Your task to perform on an android device: Open Android settings Image 0: 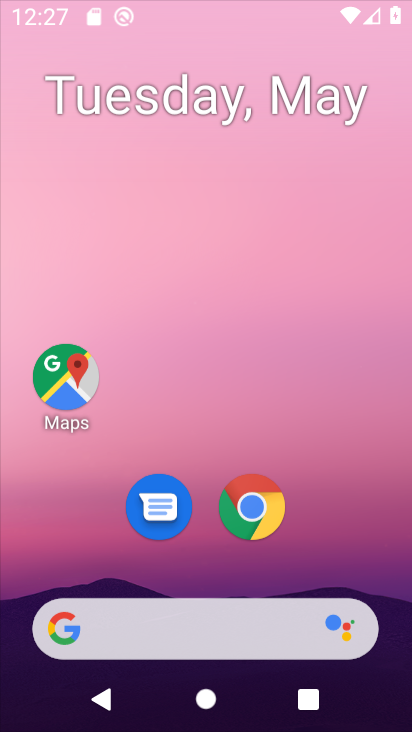
Step 0: click (109, 163)
Your task to perform on an android device: Open Android settings Image 1: 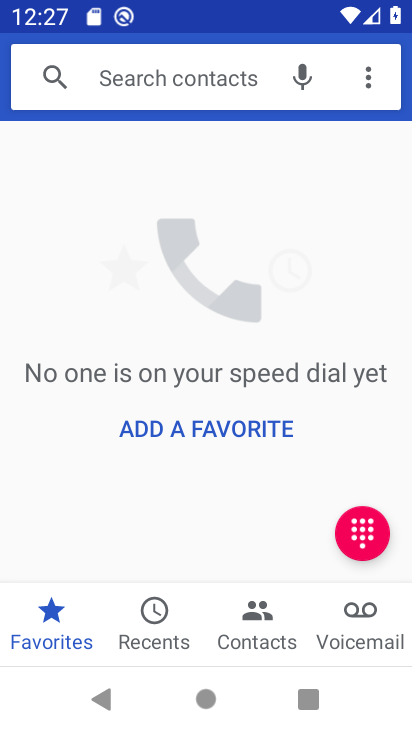
Step 1: press back button
Your task to perform on an android device: Open Android settings Image 2: 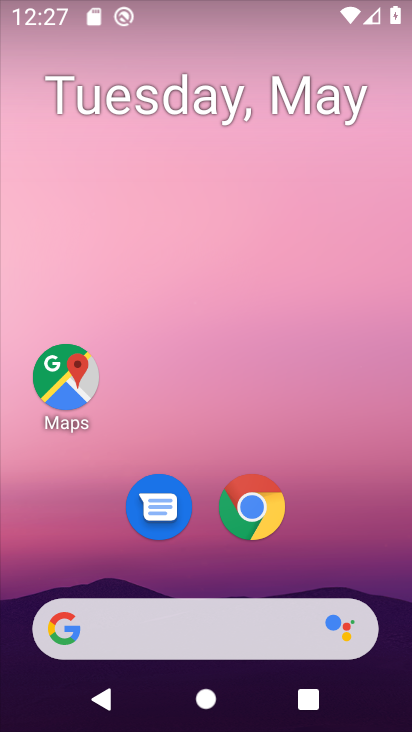
Step 2: drag from (215, 581) to (77, 135)
Your task to perform on an android device: Open Android settings Image 3: 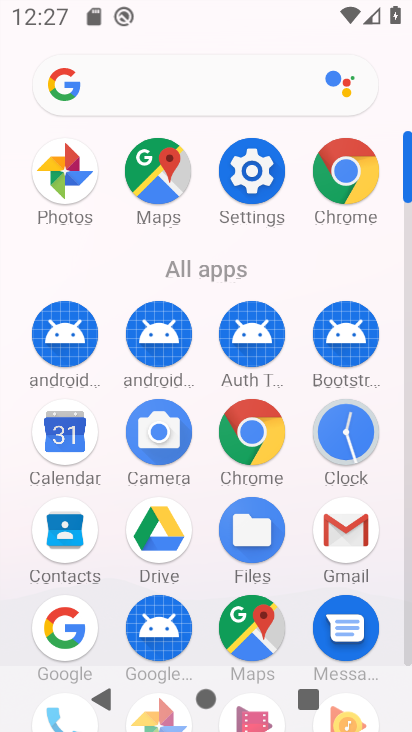
Step 3: click (258, 171)
Your task to perform on an android device: Open Android settings Image 4: 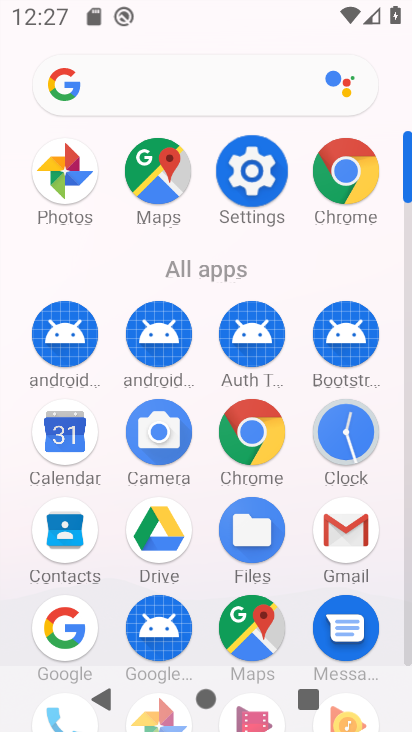
Step 4: click (258, 172)
Your task to perform on an android device: Open Android settings Image 5: 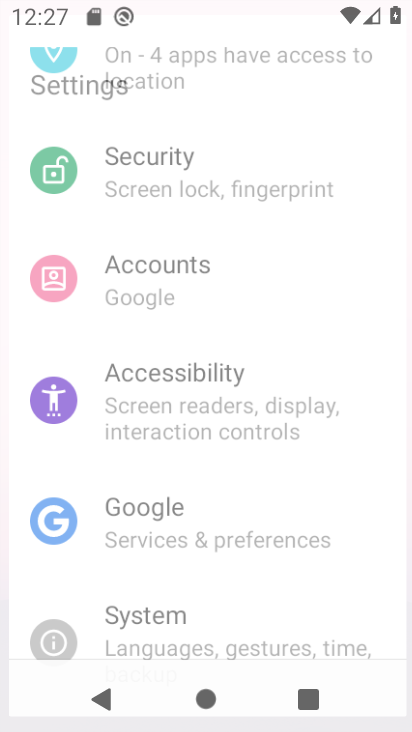
Step 5: click (256, 171)
Your task to perform on an android device: Open Android settings Image 6: 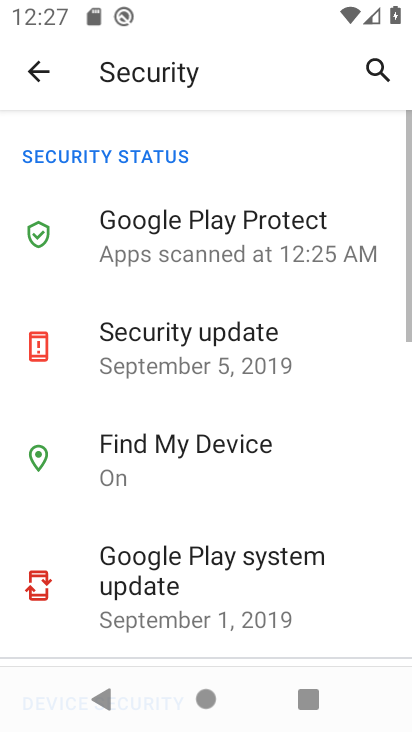
Step 6: click (28, 70)
Your task to perform on an android device: Open Android settings Image 7: 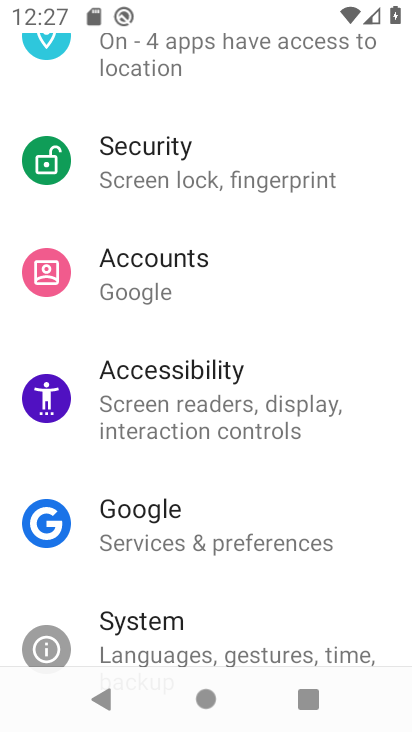
Step 7: drag from (141, 212) to (181, 433)
Your task to perform on an android device: Open Android settings Image 8: 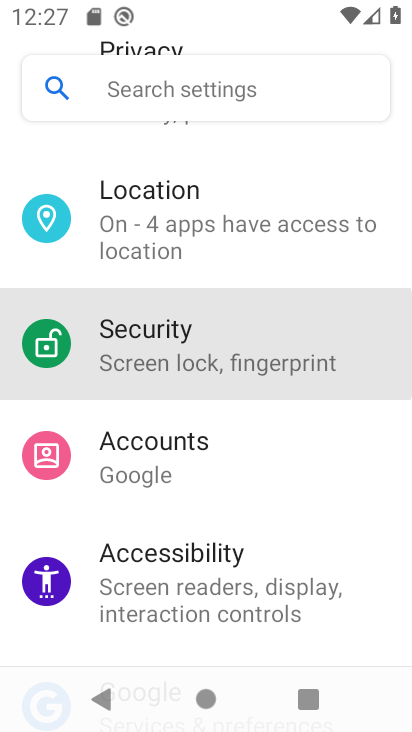
Step 8: drag from (161, 235) to (188, 493)
Your task to perform on an android device: Open Android settings Image 9: 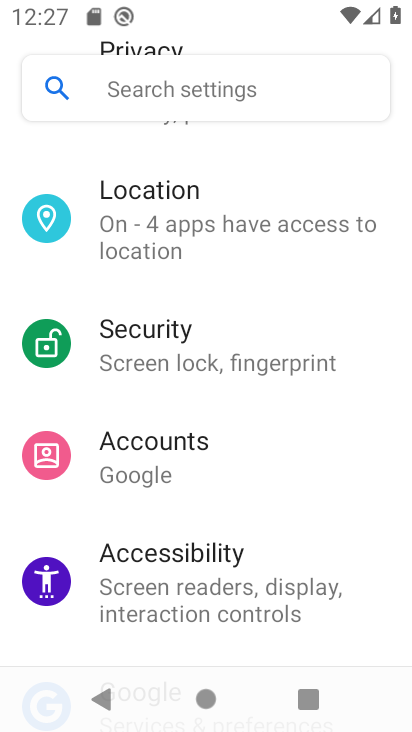
Step 9: drag from (124, 204) to (161, 382)
Your task to perform on an android device: Open Android settings Image 10: 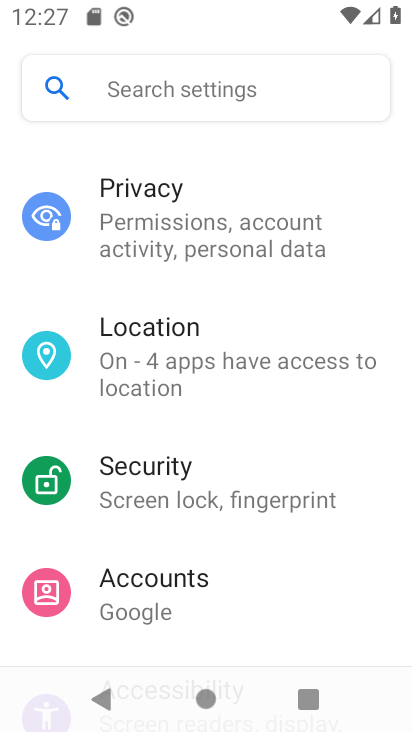
Step 10: drag from (193, 524) to (140, 84)
Your task to perform on an android device: Open Android settings Image 11: 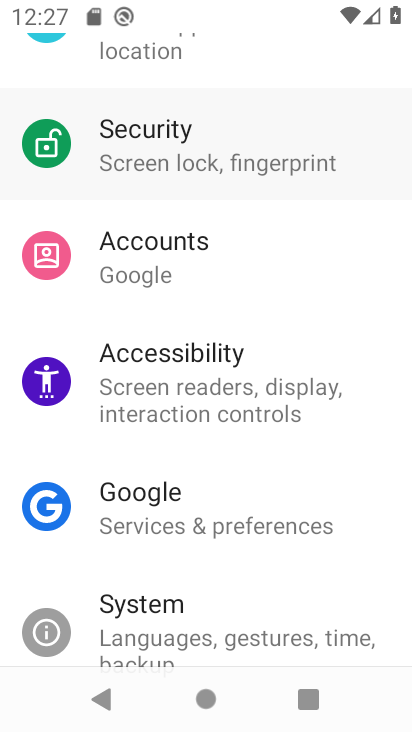
Step 11: drag from (165, 502) to (138, 165)
Your task to perform on an android device: Open Android settings Image 12: 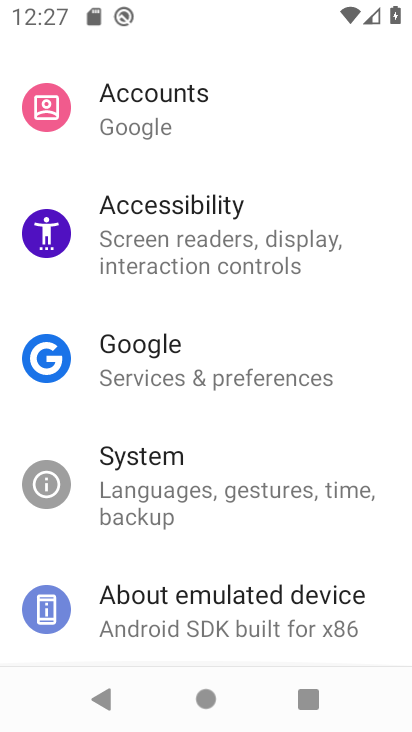
Step 12: drag from (207, 450) to (179, 140)
Your task to perform on an android device: Open Android settings Image 13: 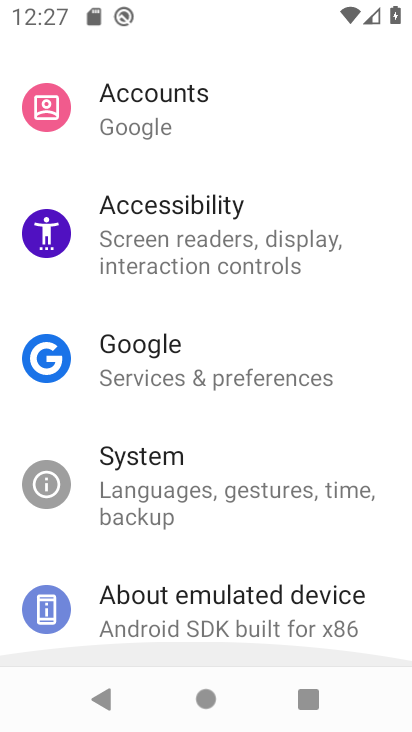
Step 13: drag from (201, 494) to (181, 206)
Your task to perform on an android device: Open Android settings Image 14: 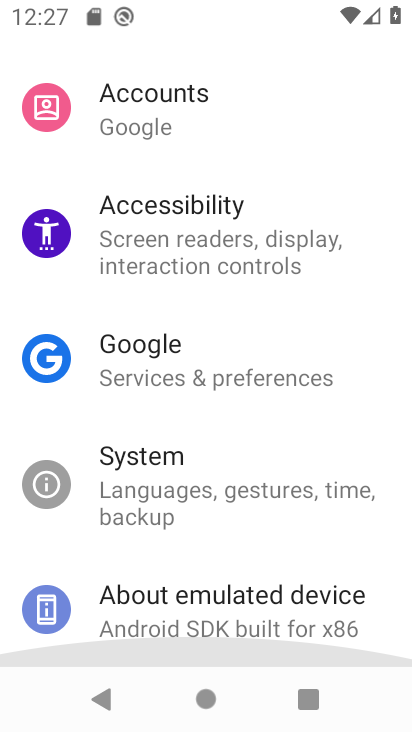
Step 14: drag from (198, 486) to (158, 285)
Your task to perform on an android device: Open Android settings Image 15: 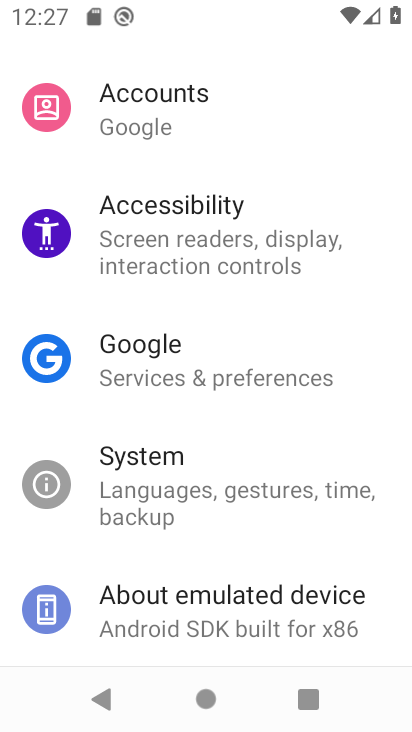
Step 15: click (194, 609)
Your task to perform on an android device: Open Android settings Image 16: 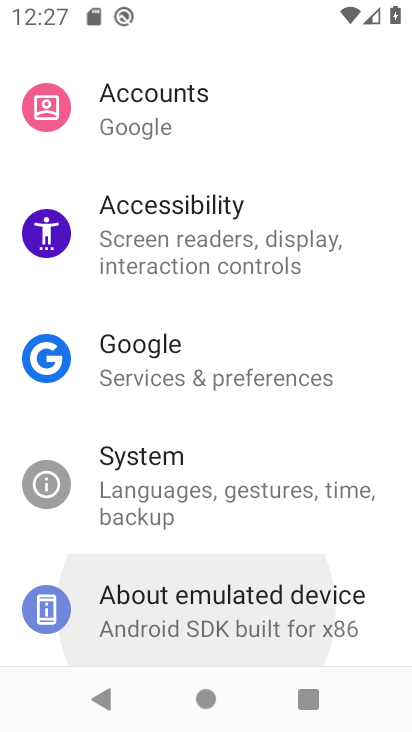
Step 16: click (195, 610)
Your task to perform on an android device: Open Android settings Image 17: 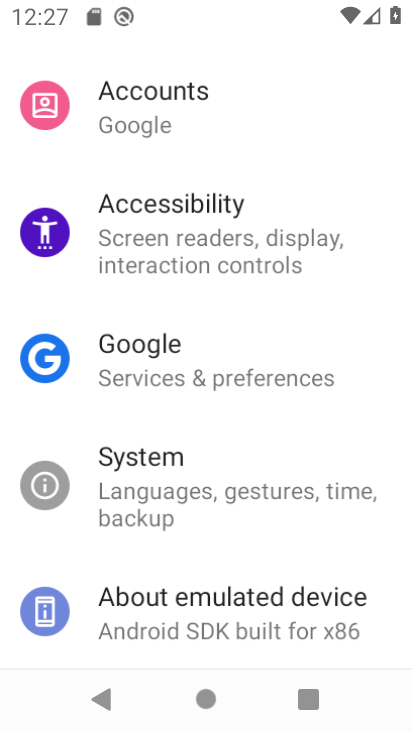
Step 17: click (196, 612)
Your task to perform on an android device: Open Android settings Image 18: 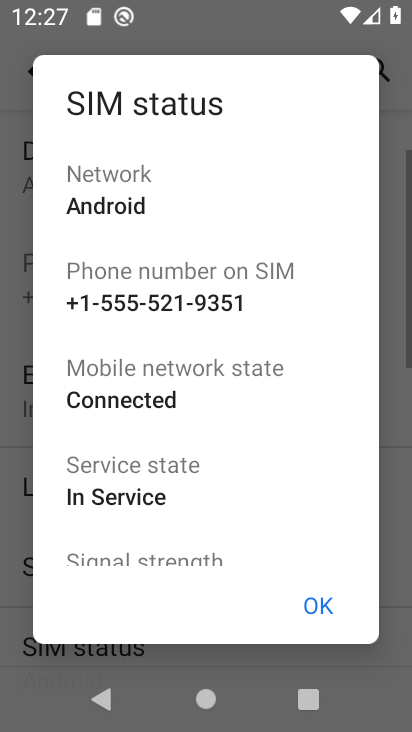
Step 18: click (316, 600)
Your task to perform on an android device: Open Android settings Image 19: 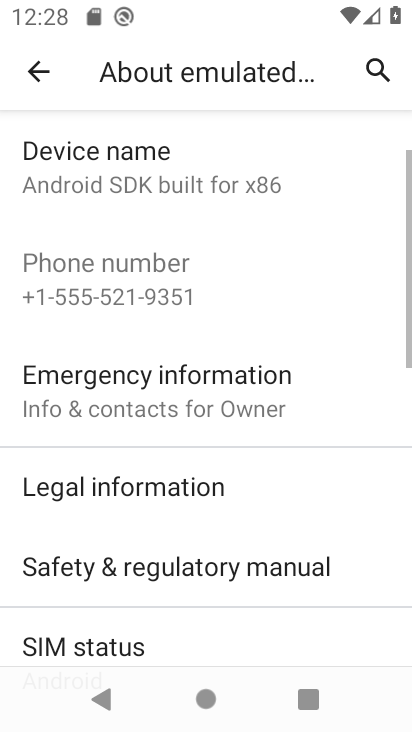
Step 19: task complete